Your task to perform on an android device: change the clock display to digital Image 0: 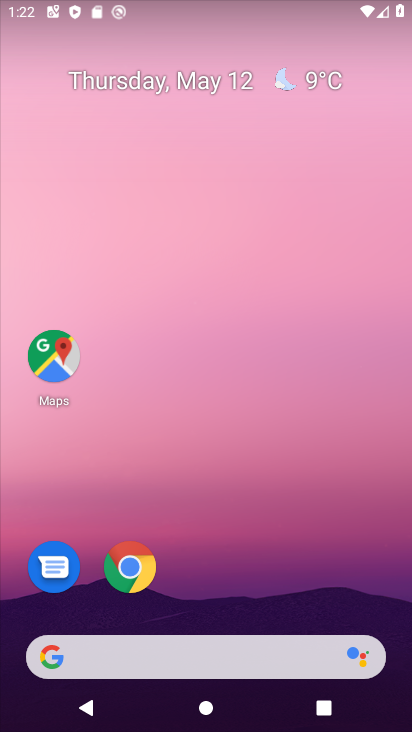
Step 0: drag from (219, 612) to (264, 70)
Your task to perform on an android device: change the clock display to digital Image 1: 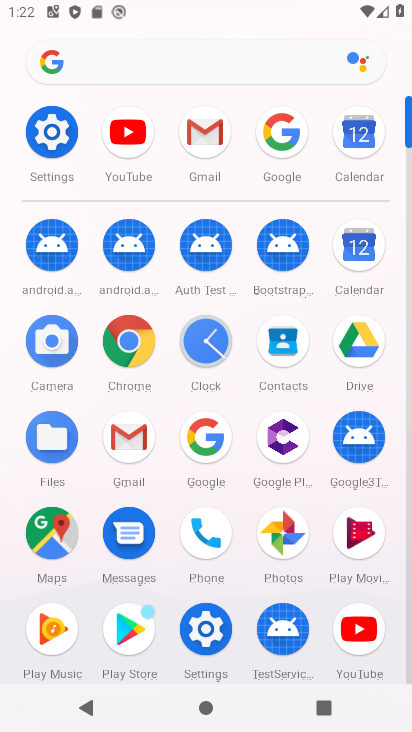
Step 1: click (201, 336)
Your task to perform on an android device: change the clock display to digital Image 2: 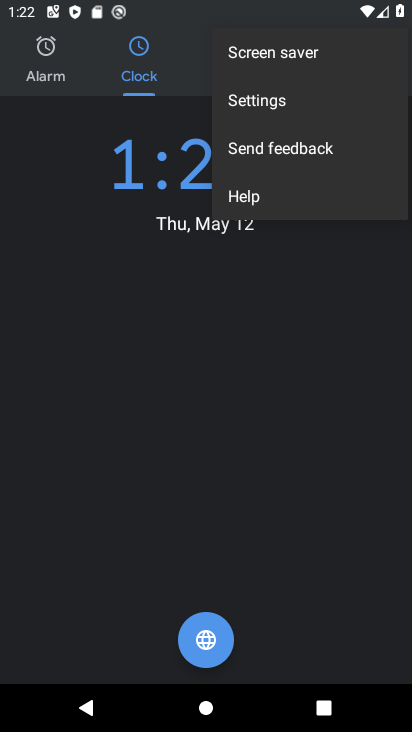
Step 2: click (289, 104)
Your task to perform on an android device: change the clock display to digital Image 3: 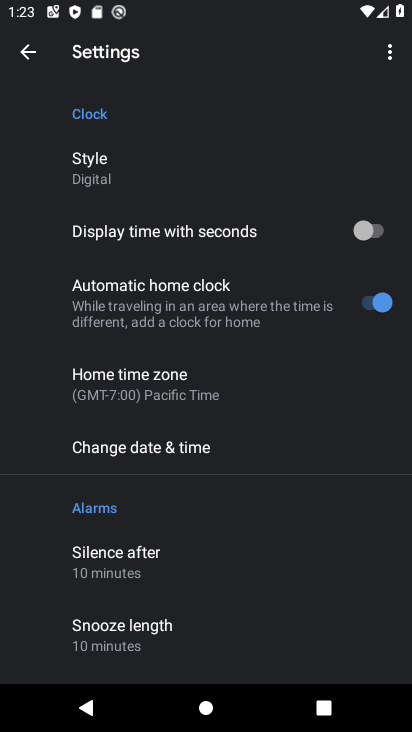
Step 3: click (120, 166)
Your task to perform on an android device: change the clock display to digital Image 4: 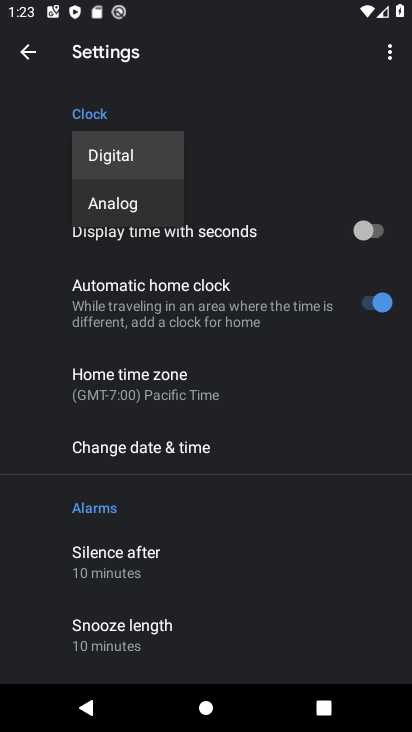
Step 4: click (144, 159)
Your task to perform on an android device: change the clock display to digital Image 5: 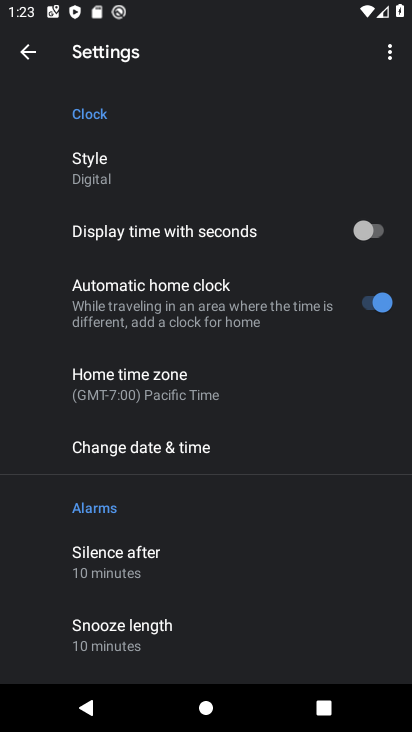
Step 5: task complete